Your task to perform on an android device: find which apps use the phone's location Image 0: 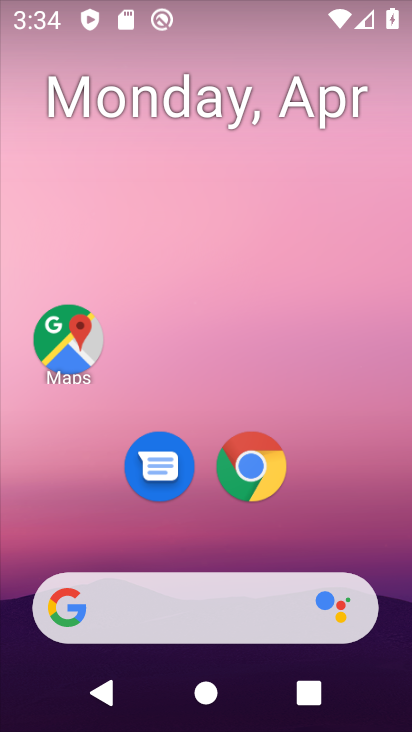
Step 0: drag from (295, 432) to (332, 73)
Your task to perform on an android device: find which apps use the phone's location Image 1: 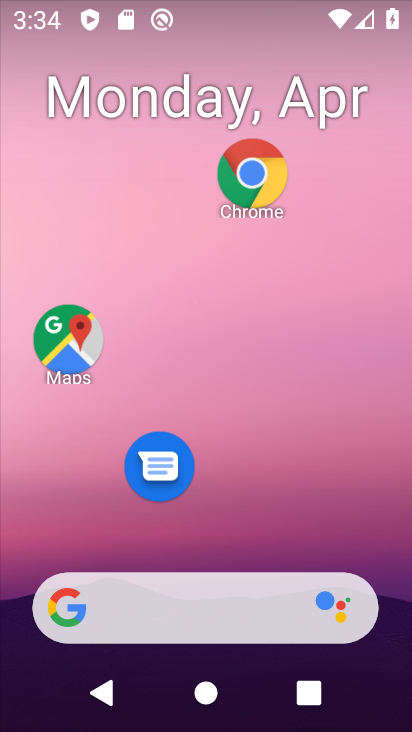
Step 1: drag from (401, 478) to (364, 91)
Your task to perform on an android device: find which apps use the phone's location Image 2: 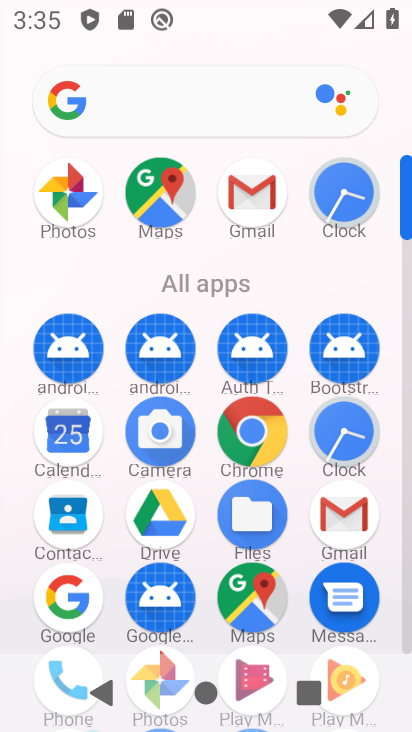
Step 2: click (407, 635)
Your task to perform on an android device: find which apps use the phone's location Image 3: 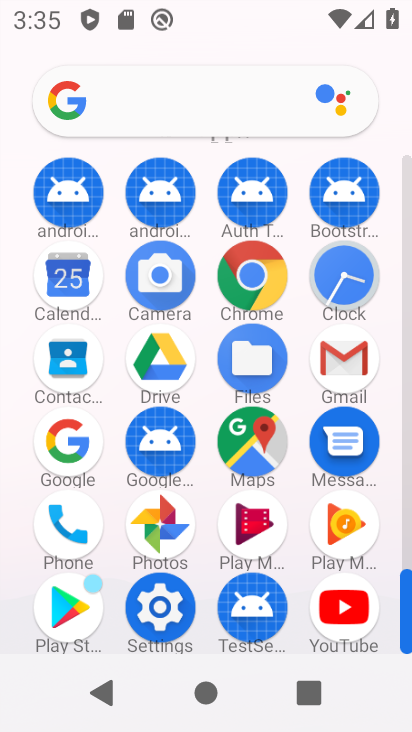
Step 3: click (172, 609)
Your task to perform on an android device: find which apps use the phone's location Image 4: 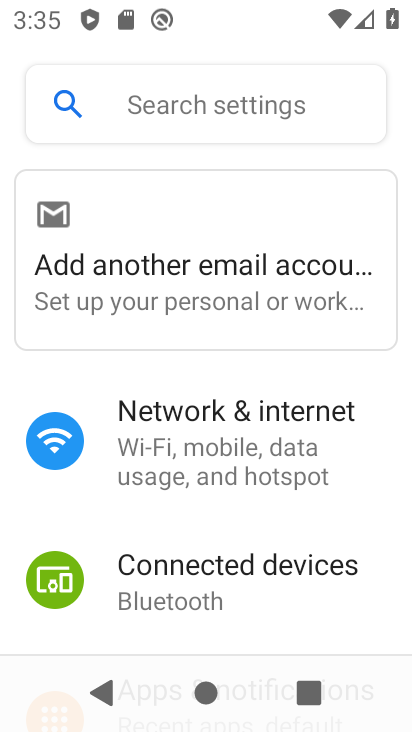
Step 4: drag from (293, 626) to (253, 209)
Your task to perform on an android device: find which apps use the phone's location Image 5: 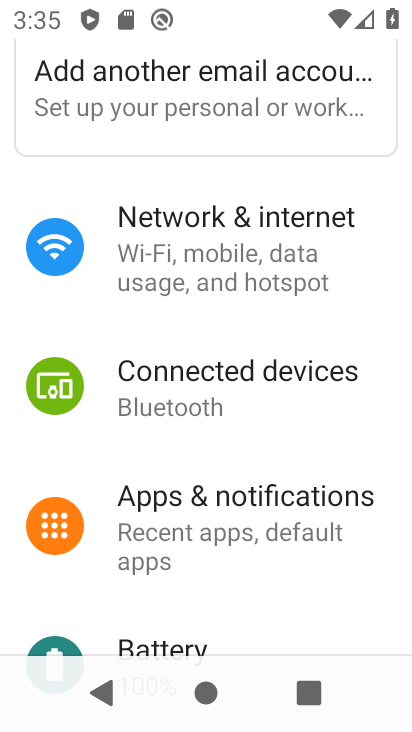
Step 5: drag from (293, 587) to (329, 62)
Your task to perform on an android device: find which apps use the phone's location Image 6: 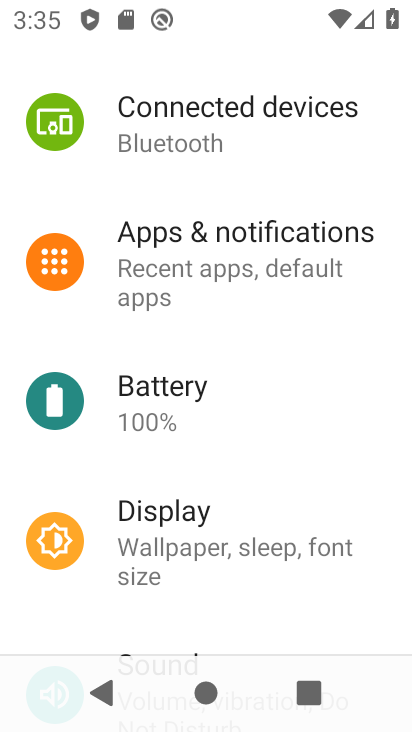
Step 6: drag from (242, 621) to (337, 130)
Your task to perform on an android device: find which apps use the phone's location Image 7: 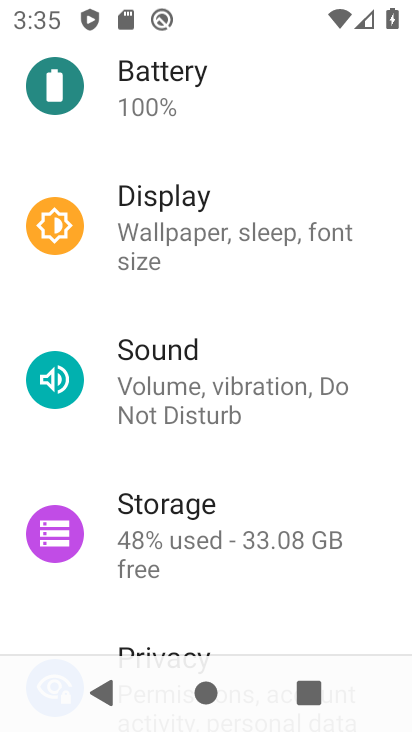
Step 7: drag from (270, 602) to (210, 181)
Your task to perform on an android device: find which apps use the phone's location Image 8: 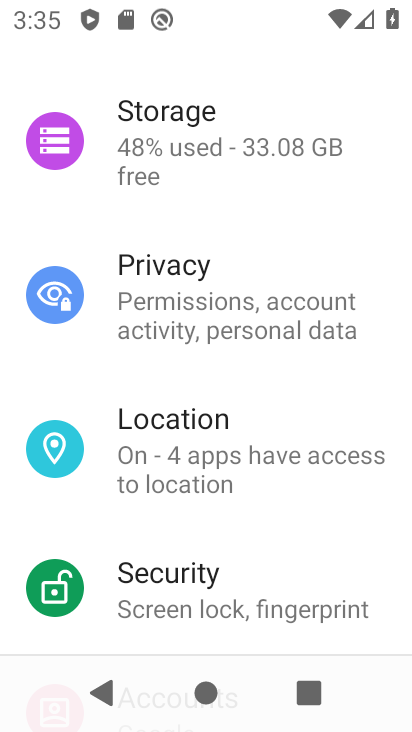
Step 8: click (201, 440)
Your task to perform on an android device: find which apps use the phone's location Image 9: 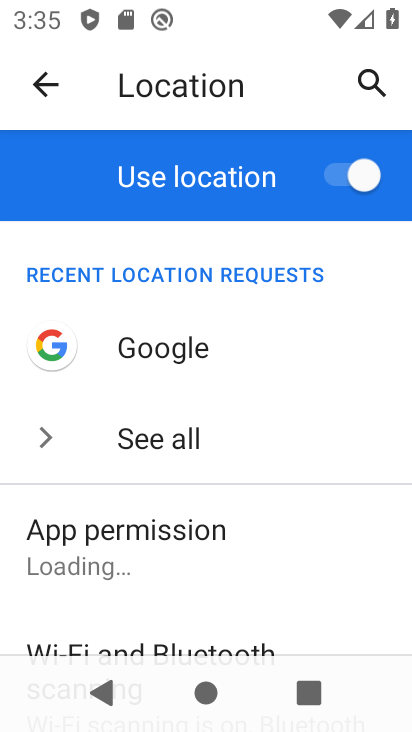
Step 9: drag from (238, 600) to (171, 181)
Your task to perform on an android device: find which apps use the phone's location Image 10: 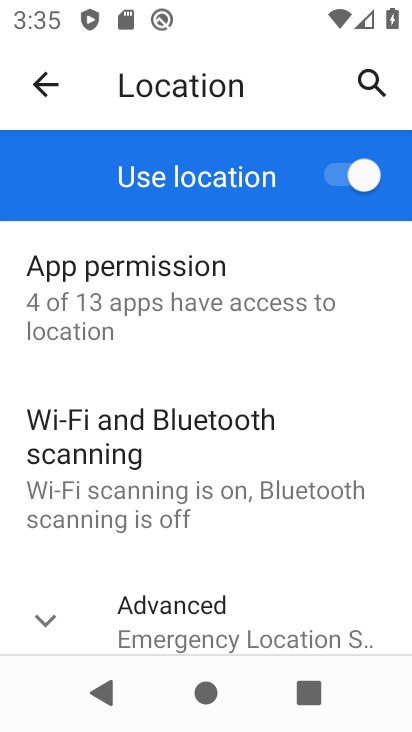
Step 10: click (205, 290)
Your task to perform on an android device: find which apps use the phone's location Image 11: 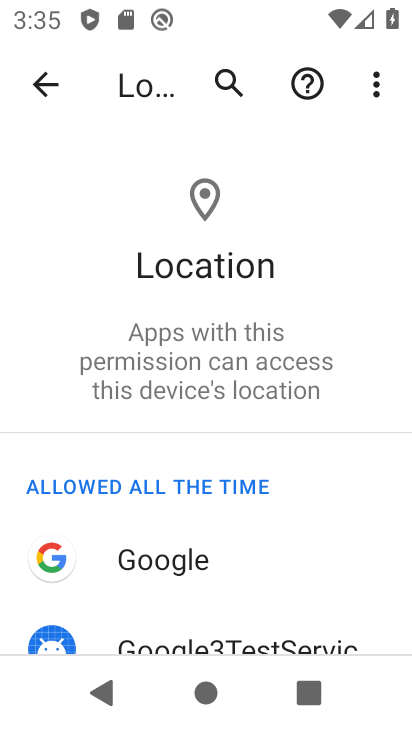
Step 11: task complete